Your task to perform on an android device: manage bookmarks in the chrome app Image 0: 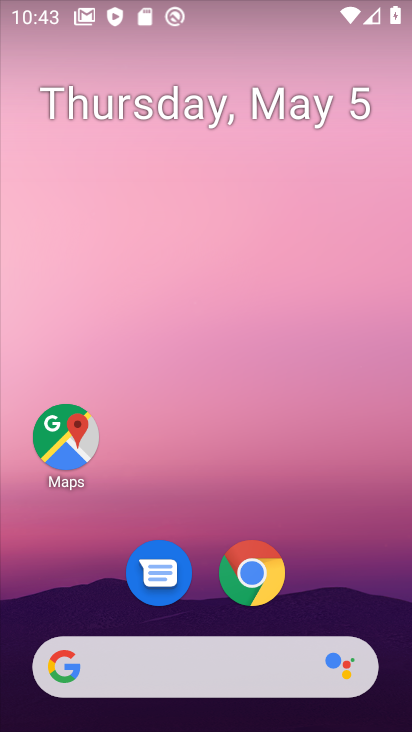
Step 0: drag from (312, 580) to (323, 220)
Your task to perform on an android device: manage bookmarks in the chrome app Image 1: 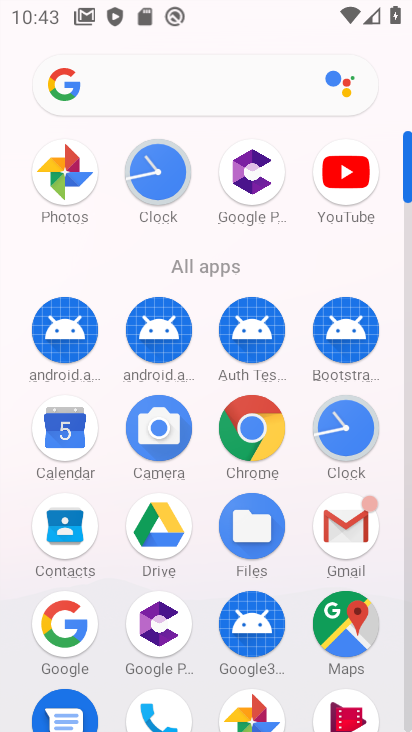
Step 1: click (240, 427)
Your task to perform on an android device: manage bookmarks in the chrome app Image 2: 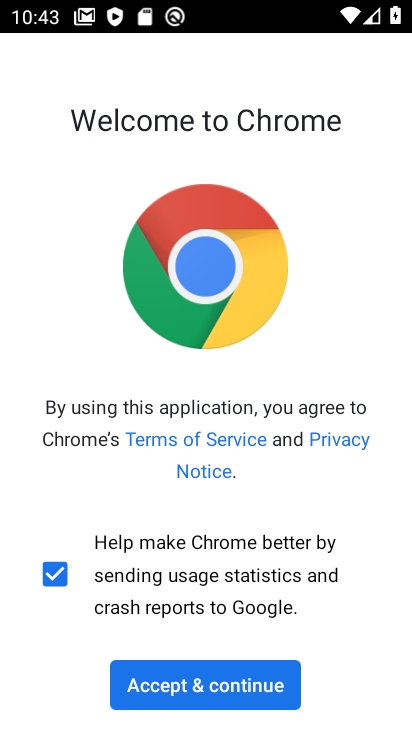
Step 2: click (229, 679)
Your task to perform on an android device: manage bookmarks in the chrome app Image 3: 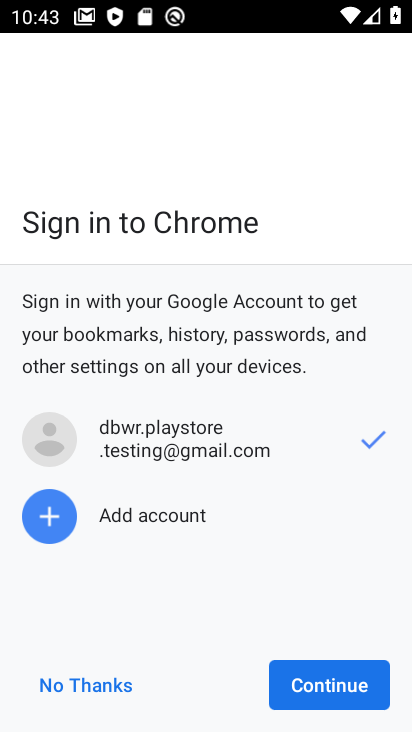
Step 3: click (314, 677)
Your task to perform on an android device: manage bookmarks in the chrome app Image 4: 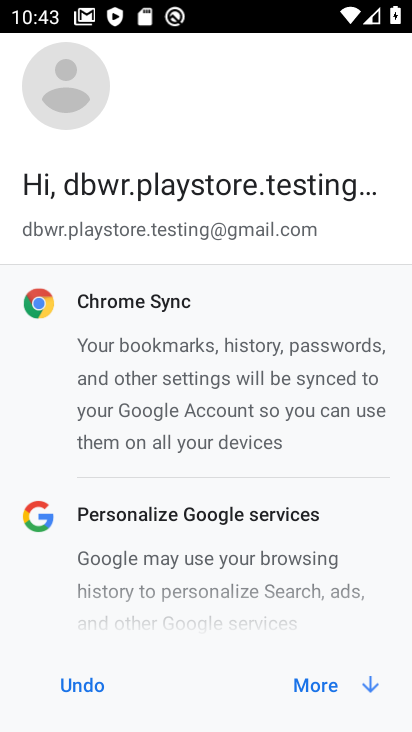
Step 4: click (89, 683)
Your task to perform on an android device: manage bookmarks in the chrome app Image 5: 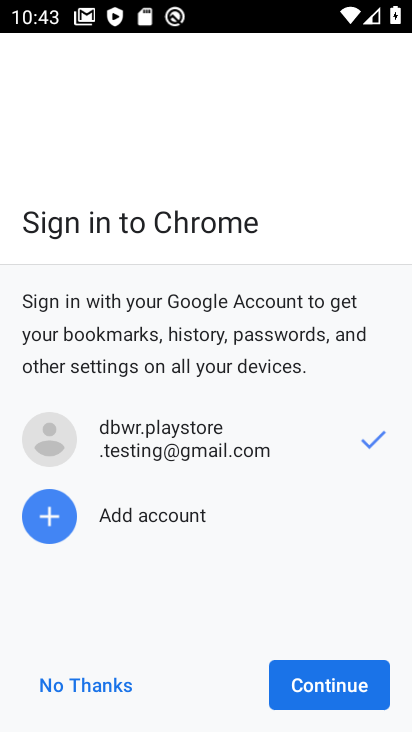
Step 5: click (317, 677)
Your task to perform on an android device: manage bookmarks in the chrome app Image 6: 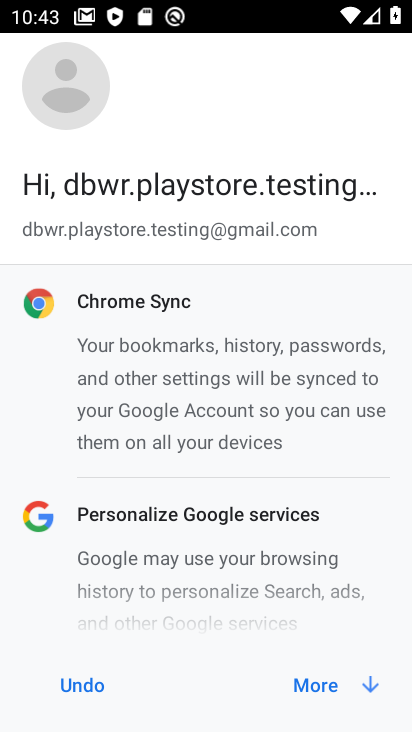
Step 6: click (317, 690)
Your task to perform on an android device: manage bookmarks in the chrome app Image 7: 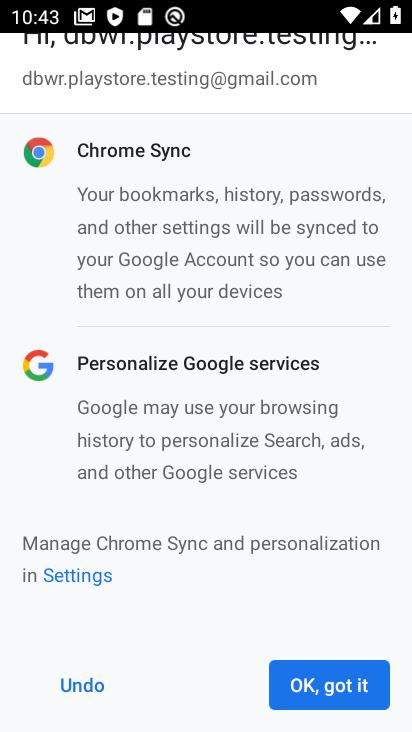
Step 7: click (332, 667)
Your task to perform on an android device: manage bookmarks in the chrome app Image 8: 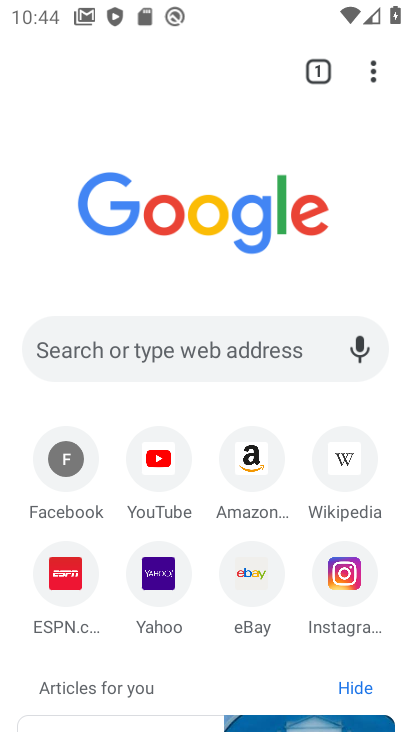
Step 8: click (372, 70)
Your task to perform on an android device: manage bookmarks in the chrome app Image 9: 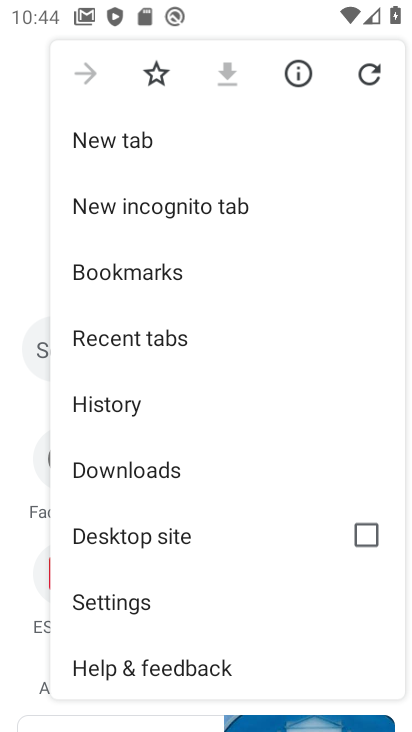
Step 9: click (143, 270)
Your task to perform on an android device: manage bookmarks in the chrome app Image 10: 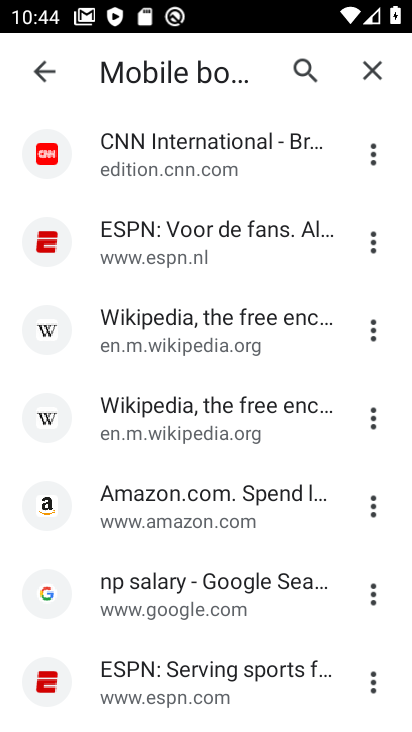
Step 10: click (162, 143)
Your task to perform on an android device: manage bookmarks in the chrome app Image 11: 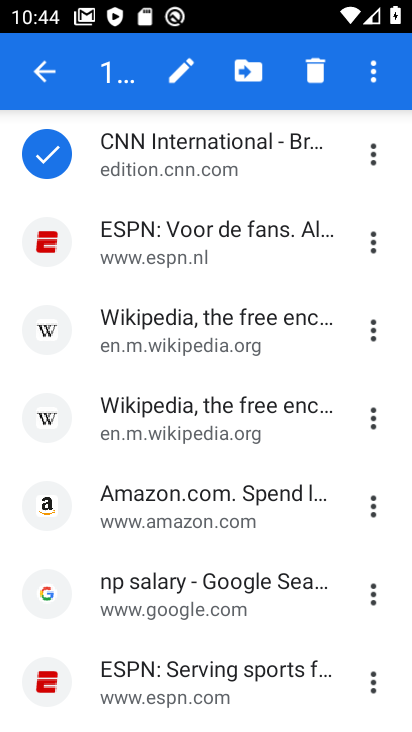
Step 11: click (245, 60)
Your task to perform on an android device: manage bookmarks in the chrome app Image 12: 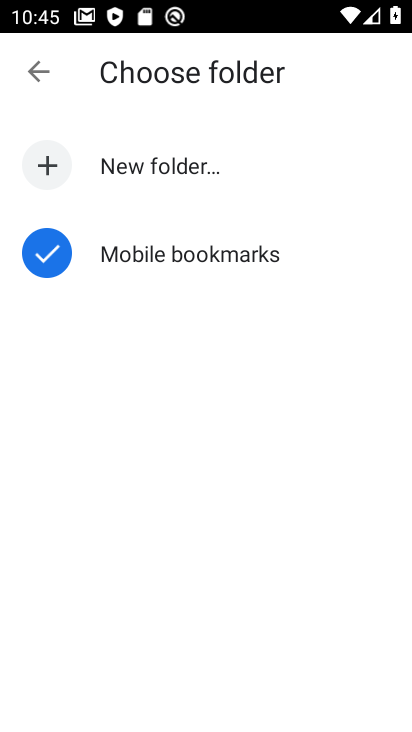
Step 12: task complete